Your task to perform on an android device: Is it going to rain this weekend? Image 0: 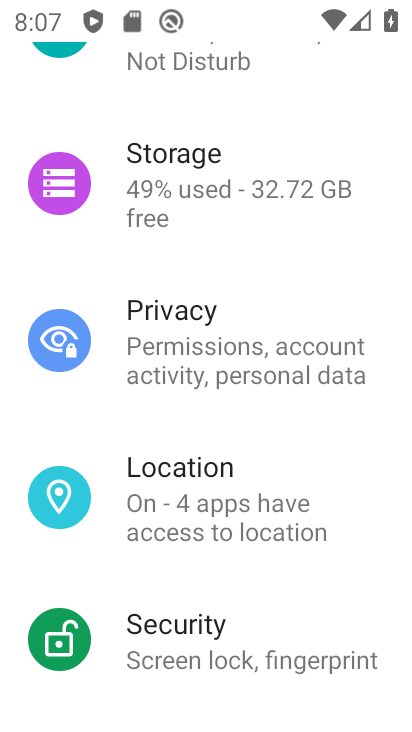
Step 0: press home button
Your task to perform on an android device: Is it going to rain this weekend? Image 1: 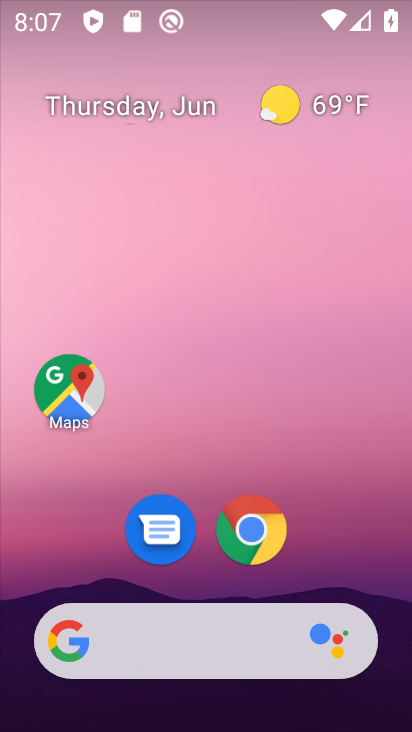
Step 1: click (220, 674)
Your task to perform on an android device: Is it going to rain this weekend? Image 2: 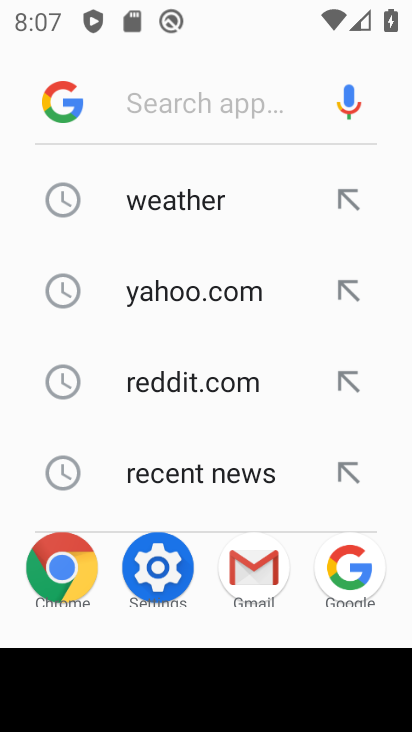
Step 2: click (170, 214)
Your task to perform on an android device: Is it going to rain this weekend? Image 3: 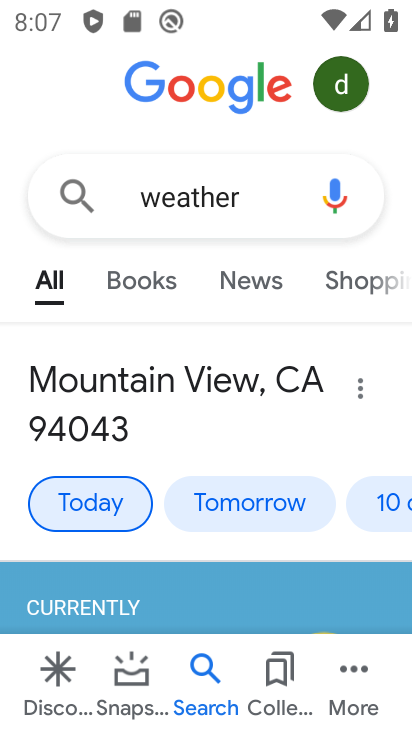
Step 3: click (390, 511)
Your task to perform on an android device: Is it going to rain this weekend? Image 4: 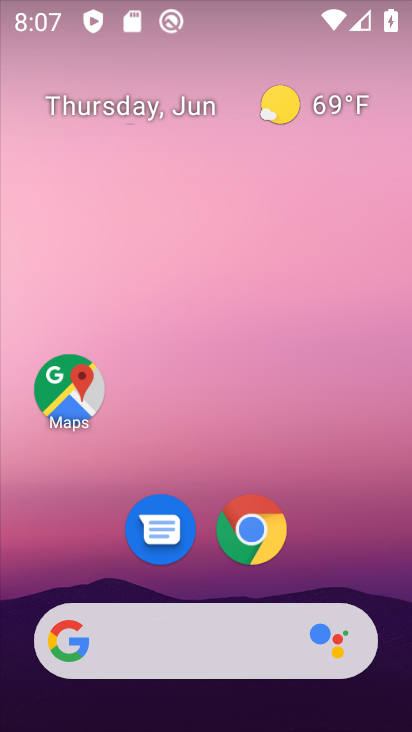
Step 4: click (253, 668)
Your task to perform on an android device: Is it going to rain this weekend? Image 5: 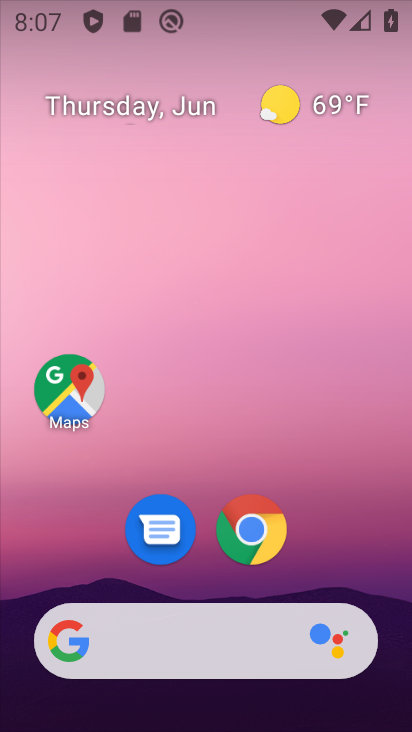
Step 5: click (249, 661)
Your task to perform on an android device: Is it going to rain this weekend? Image 6: 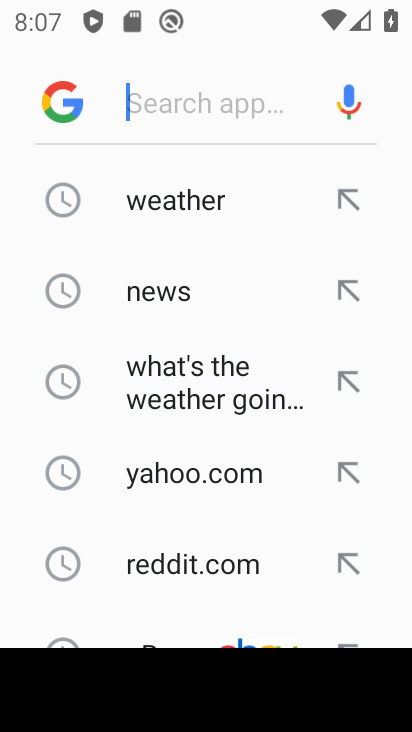
Step 6: click (198, 199)
Your task to perform on an android device: Is it going to rain this weekend? Image 7: 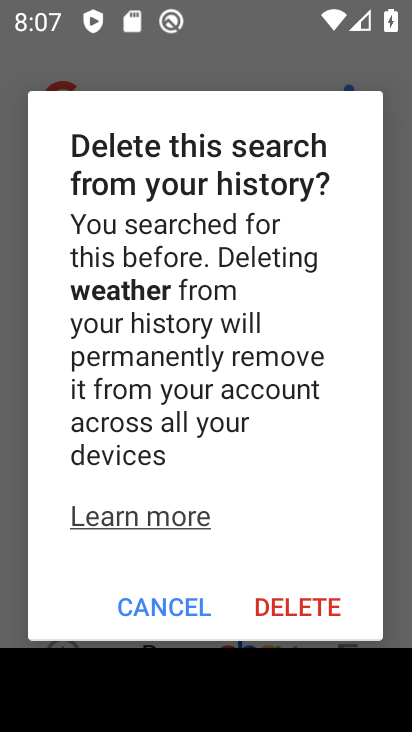
Step 7: click (175, 604)
Your task to perform on an android device: Is it going to rain this weekend? Image 8: 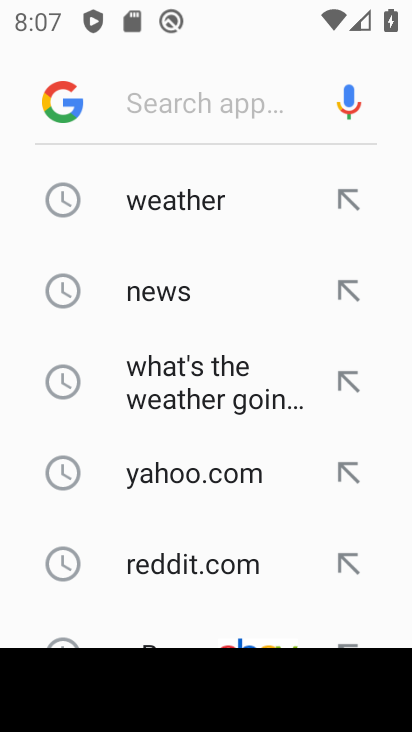
Step 8: click (126, 215)
Your task to perform on an android device: Is it going to rain this weekend? Image 9: 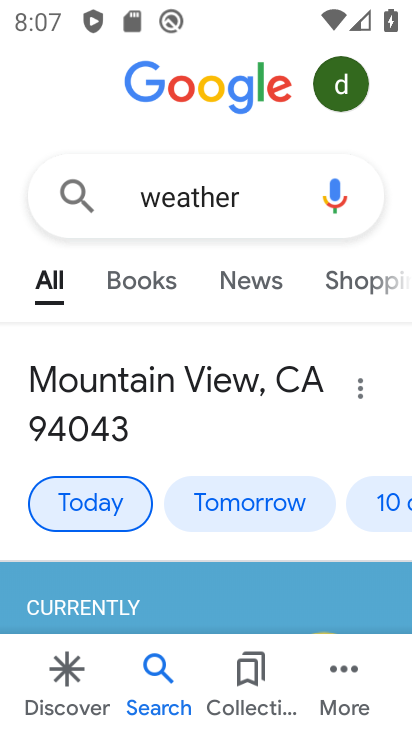
Step 9: click (380, 504)
Your task to perform on an android device: Is it going to rain this weekend? Image 10: 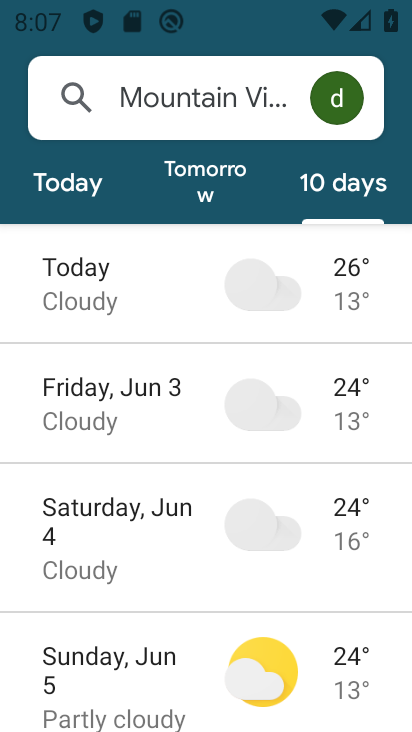
Step 10: task complete